Your task to perform on an android device: Go to notification settings Image 0: 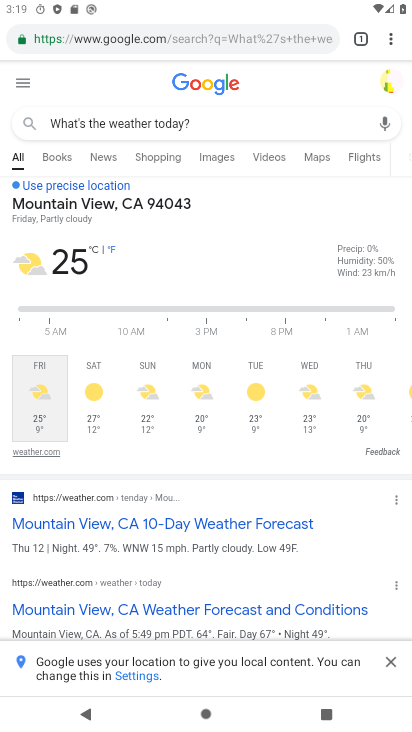
Step 0: press home button
Your task to perform on an android device: Go to notification settings Image 1: 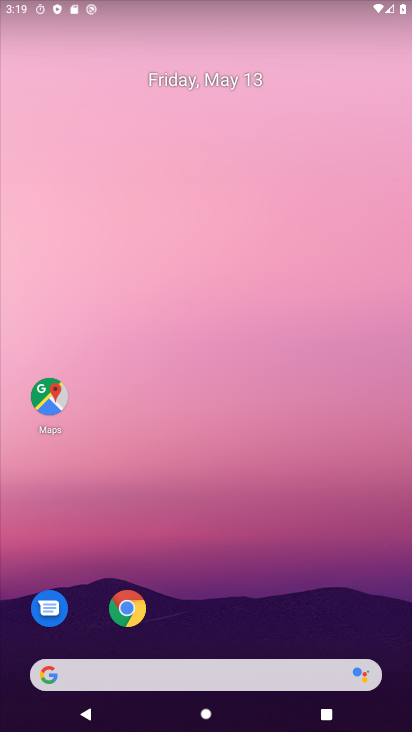
Step 1: drag from (361, 600) to (364, 32)
Your task to perform on an android device: Go to notification settings Image 2: 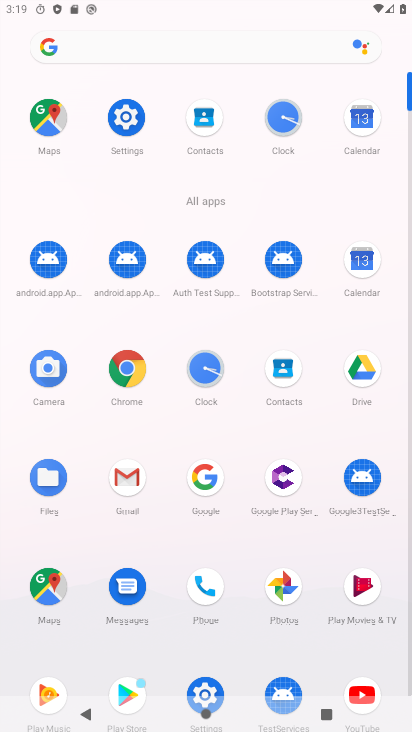
Step 2: click (131, 112)
Your task to perform on an android device: Go to notification settings Image 3: 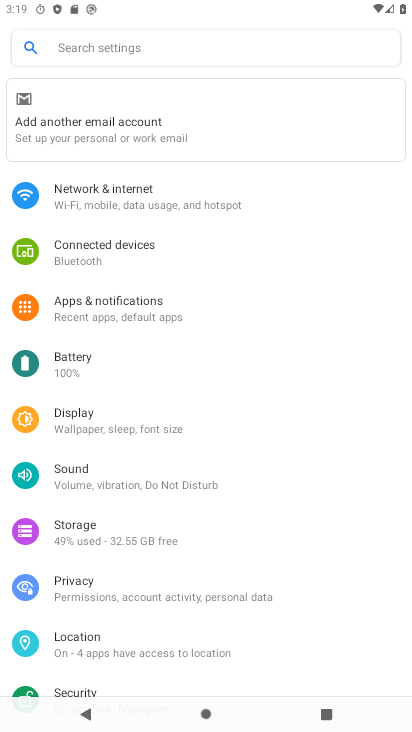
Step 3: click (141, 303)
Your task to perform on an android device: Go to notification settings Image 4: 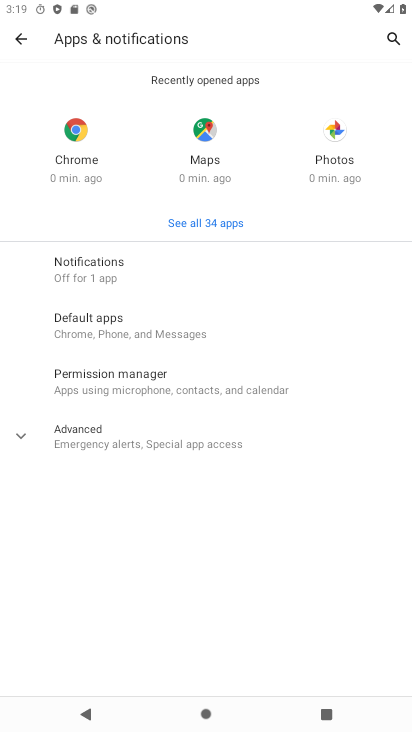
Step 4: task complete